Your task to perform on an android device: turn on data saver in the chrome app Image 0: 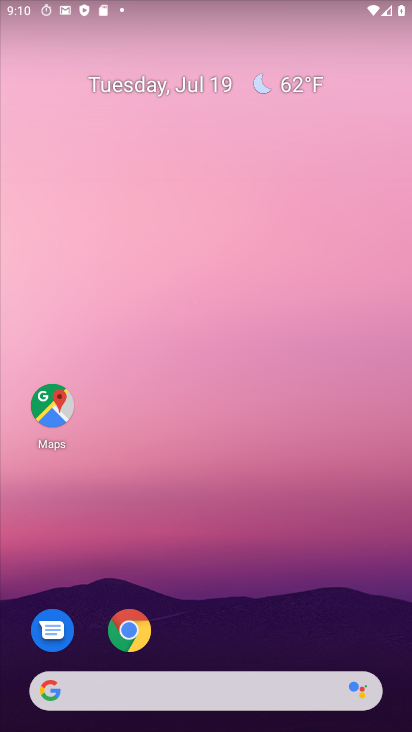
Step 0: click (165, 165)
Your task to perform on an android device: turn on data saver in the chrome app Image 1: 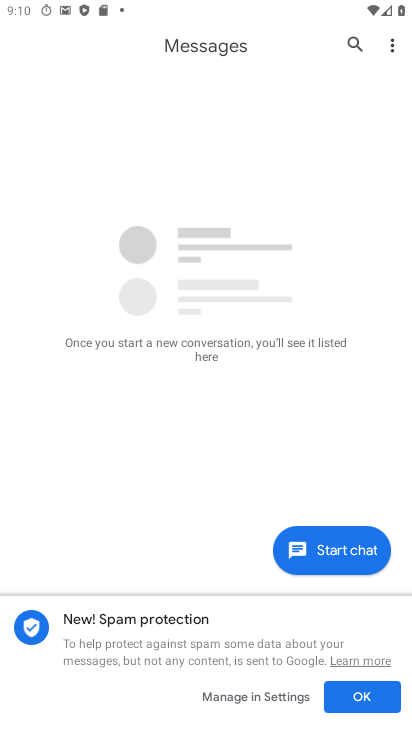
Step 1: press home button
Your task to perform on an android device: turn on data saver in the chrome app Image 2: 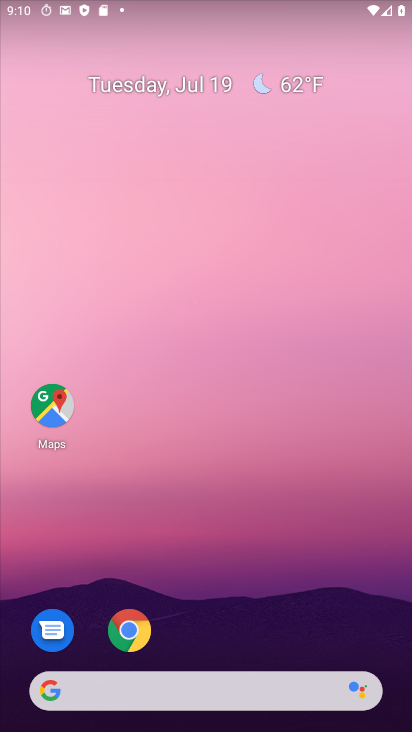
Step 2: click (114, 628)
Your task to perform on an android device: turn on data saver in the chrome app Image 3: 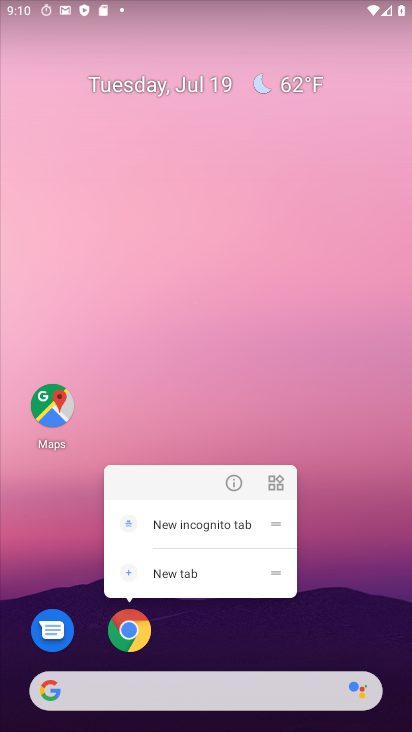
Step 3: click (113, 630)
Your task to perform on an android device: turn on data saver in the chrome app Image 4: 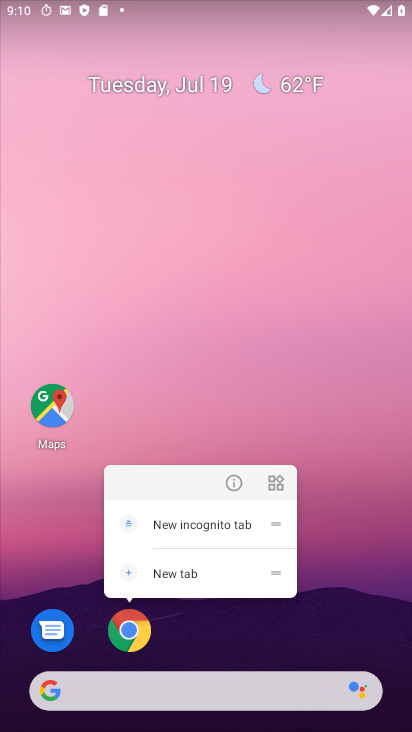
Step 4: click (119, 634)
Your task to perform on an android device: turn on data saver in the chrome app Image 5: 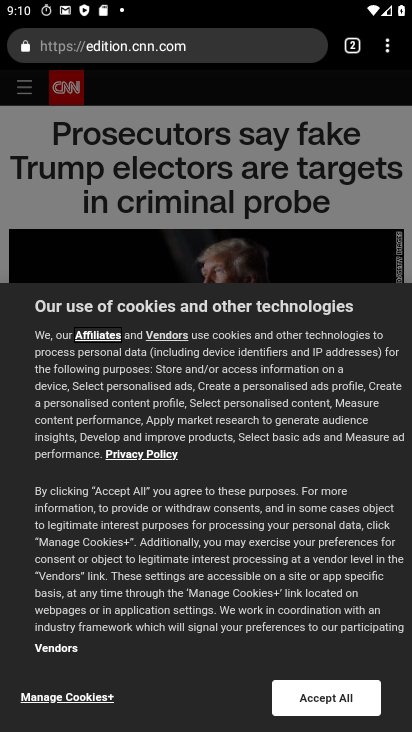
Step 5: click (390, 49)
Your task to perform on an android device: turn on data saver in the chrome app Image 6: 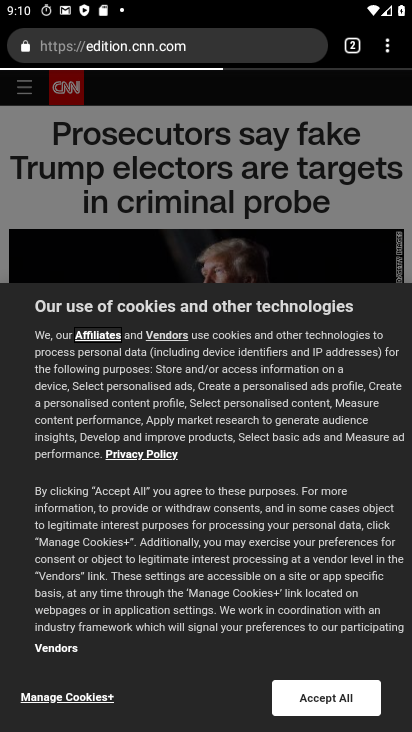
Step 6: click (390, 49)
Your task to perform on an android device: turn on data saver in the chrome app Image 7: 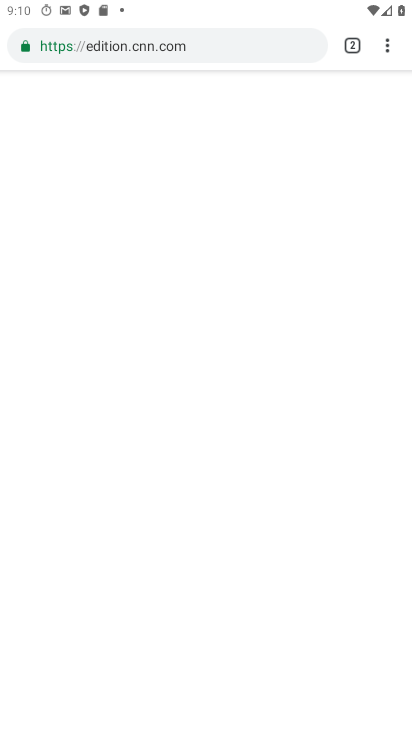
Step 7: click (391, 44)
Your task to perform on an android device: turn on data saver in the chrome app Image 8: 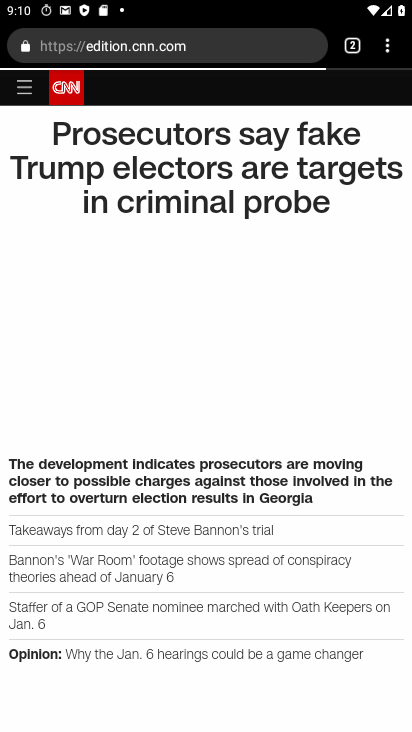
Step 8: task complete